Your task to perform on an android device: Do I have any events tomorrow? Image 0: 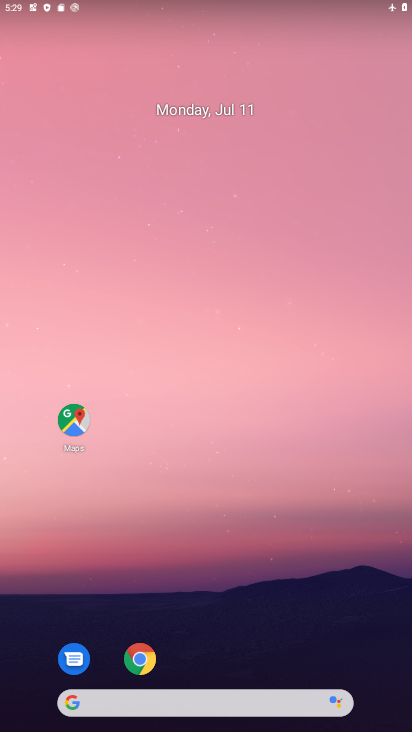
Step 0: drag from (390, 642) to (314, 4)
Your task to perform on an android device: Do I have any events tomorrow? Image 1: 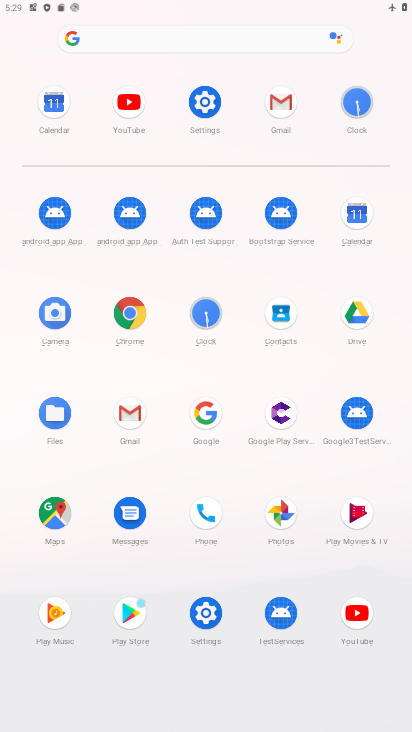
Step 1: click (358, 217)
Your task to perform on an android device: Do I have any events tomorrow? Image 2: 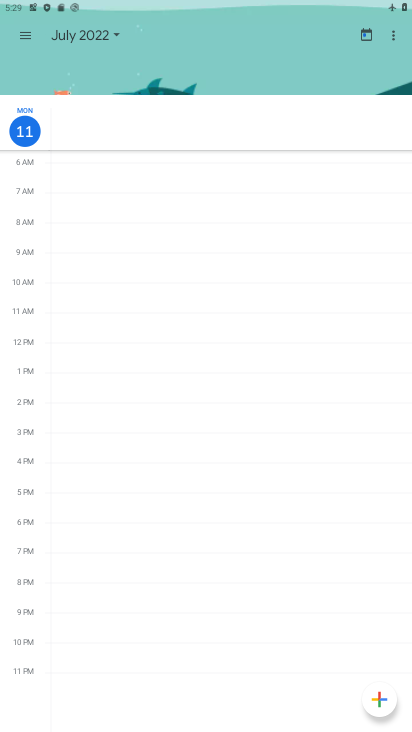
Step 2: click (113, 29)
Your task to perform on an android device: Do I have any events tomorrow? Image 3: 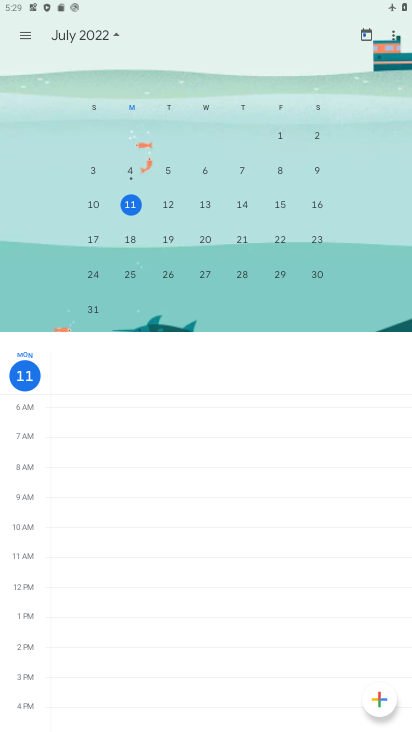
Step 3: click (166, 208)
Your task to perform on an android device: Do I have any events tomorrow? Image 4: 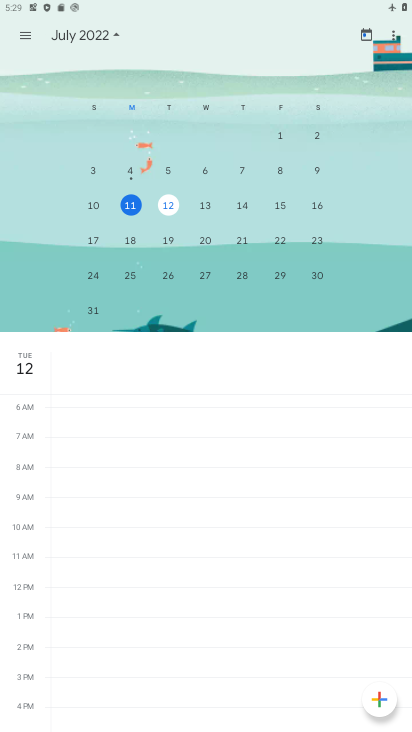
Step 4: task complete